Your task to perform on an android device: open a new tab in the chrome app Image 0: 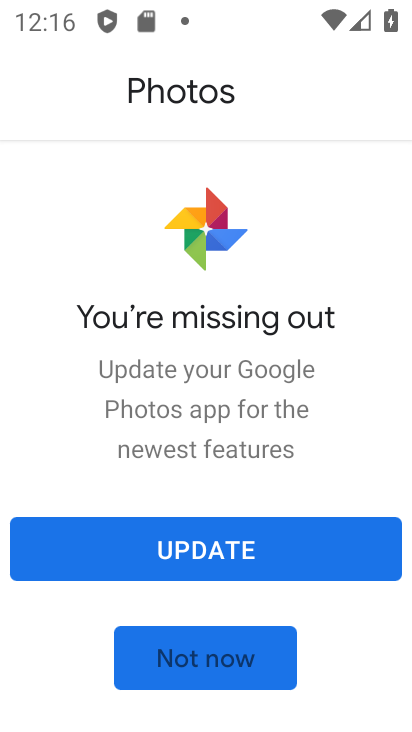
Step 0: press home button
Your task to perform on an android device: open a new tab in the chrome app Image 1: 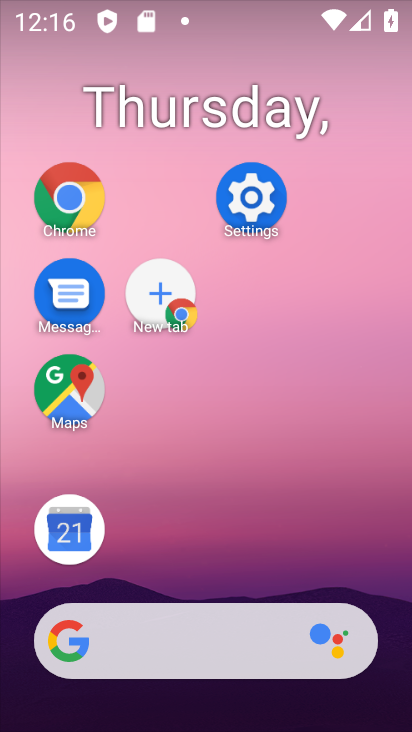
Step 1: drag from (288, 706) to (121, 122)
Your task to perform on an android device: open a new tab in the chrome app Image 2: 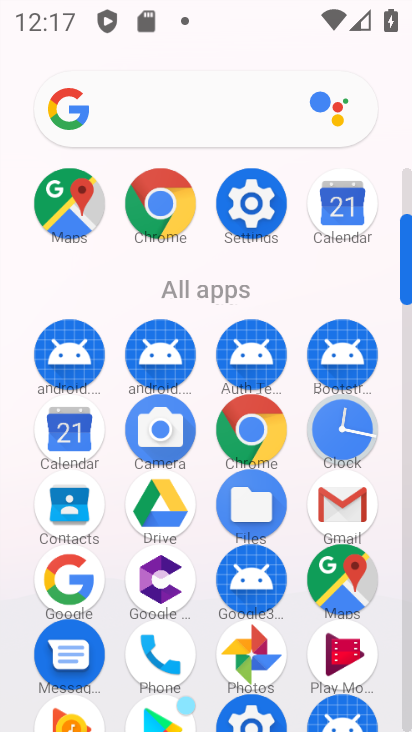
Step 2: click (156, 214)
Your task to perform on an android device: open a new tab in the chrome app Image 3: 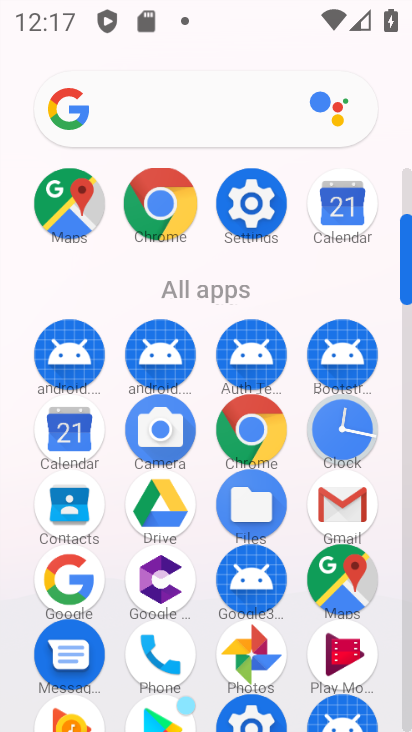
Step 3: click (156, 214)
Your task to perform on an android device: open a new tab in the chrome app Image 4: 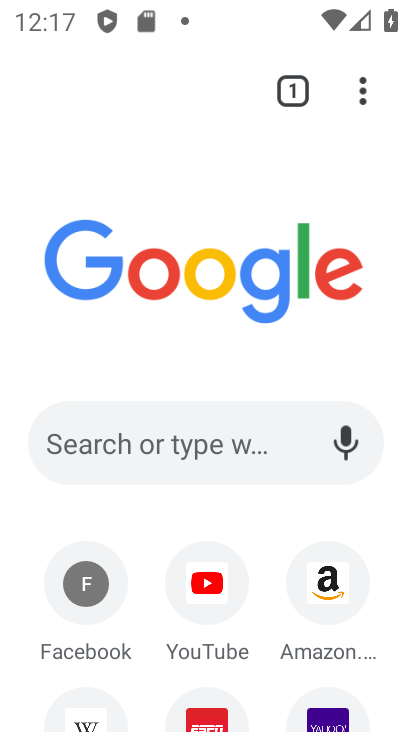
Step 4: click (353, 88)
Your task to perform on an android device: open a new tab in the chrome app Image 5: 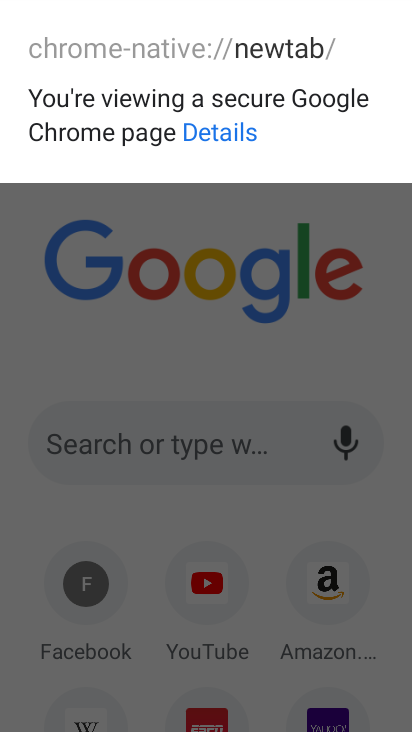
Step 5: click (102, 183)
Your task to perform on an android device: open a new tab in the chrome app Image 6: 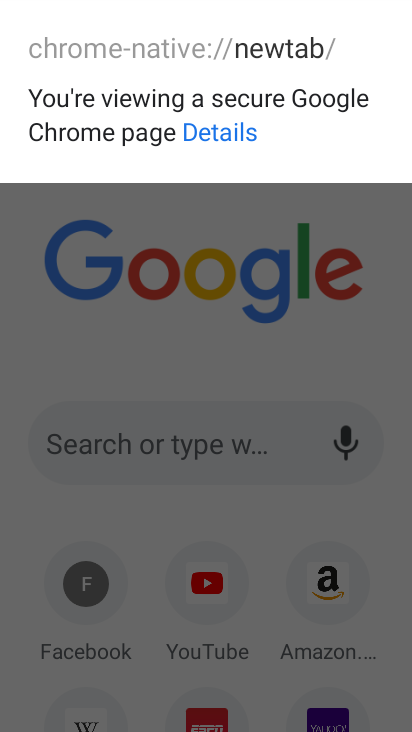
Step 6: drag from (380, 373) to (332, 369)
Your task to perform on an android device: open a new tab in the chrome app Image 7: 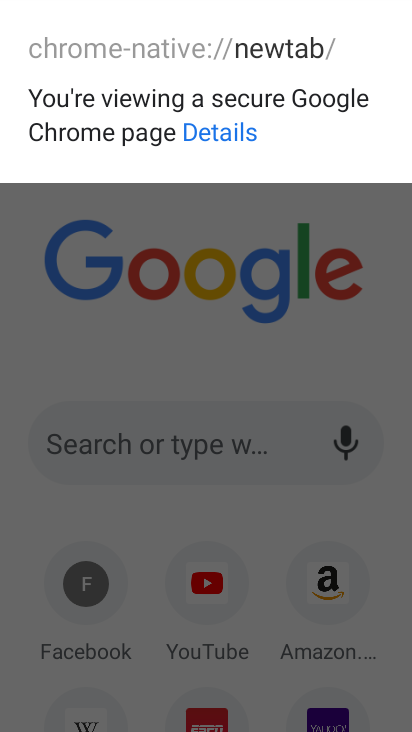
Step 7: drag from (332, 363) to (305, 308)
Your task to perform on an android device: open a new tab in the chrome app Image 8: 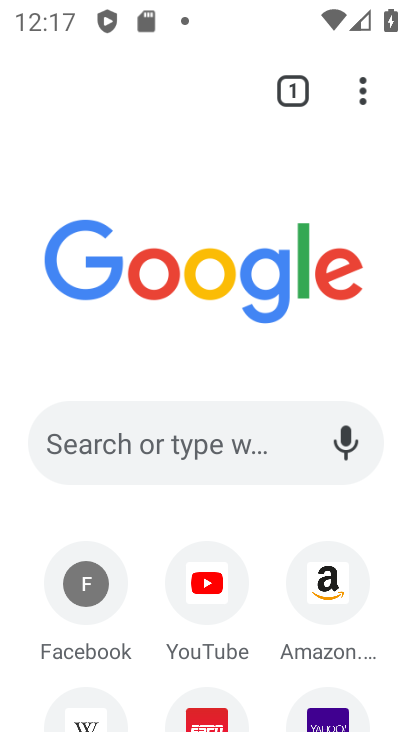
Step 8: click (363, 95)
Your task to perform on an android device: open a new tab in the chrome app Image 9: 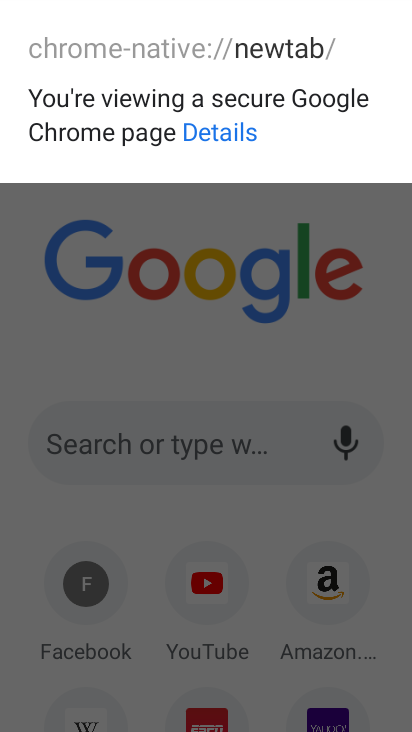
Step 9: click (367, 238)
Your task to perform on an android device: open a new tab in the chrome app Image 10: 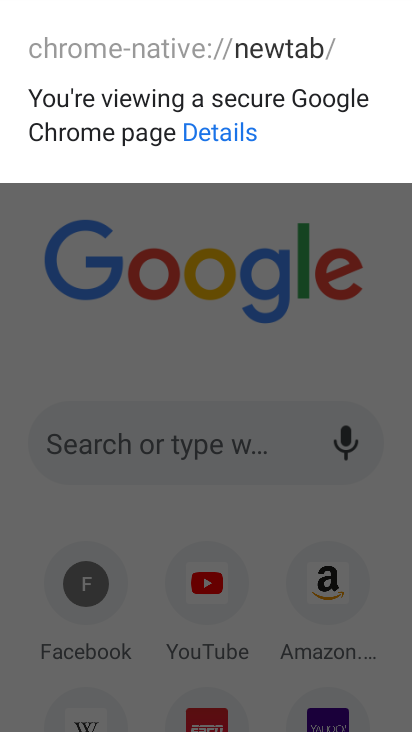
Step 10: click (367, 238)
Your task to perform on an android device: open a new tab in the chrome app Image 11: 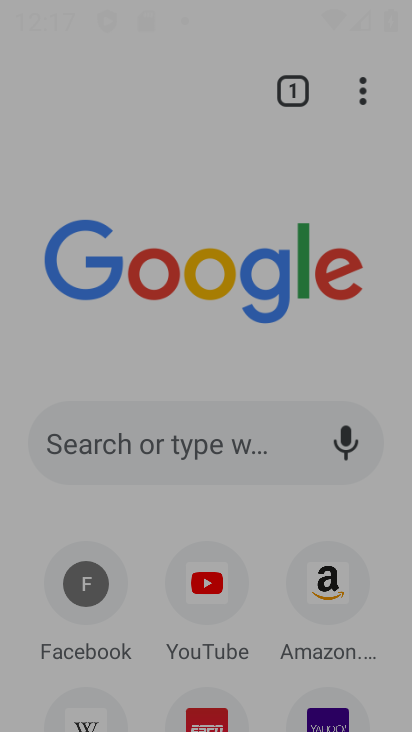
Step 11: click (367, 236)
Your task to perform on an android device: open a new tab in the chrome app Image 12: 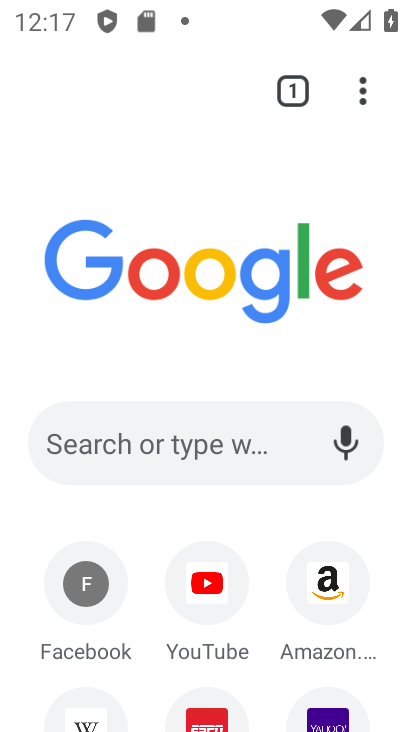
Step 12: task complete